Your task to perform on an android device: clear history in the chrome app Image 0: 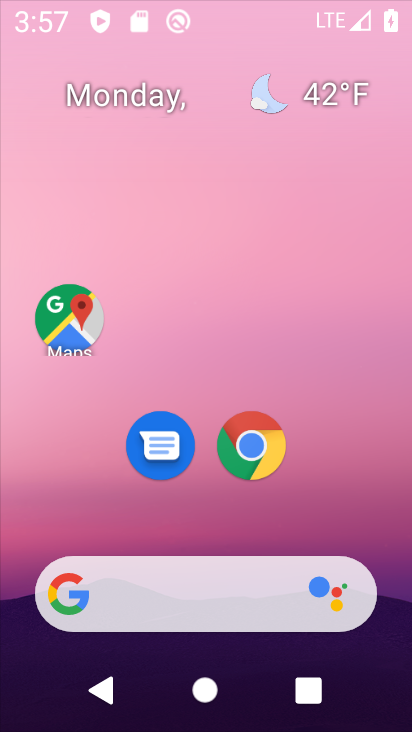
Step 0: drag from (90, 403) to (220, 38)
Your task to perform on an android device: clear history in the chrome app Image 1: 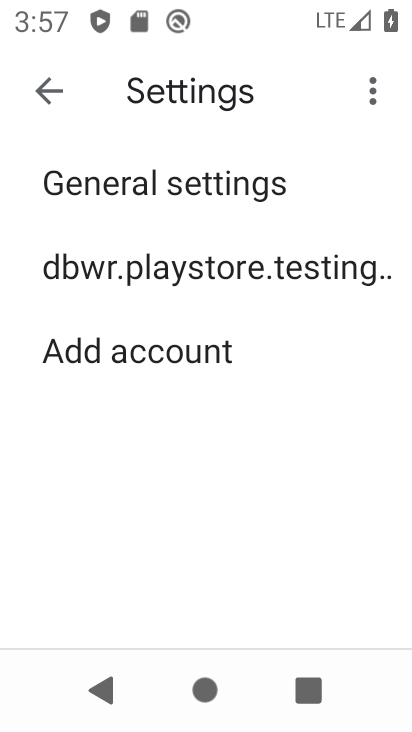
Step 1: press home button
Your task to perform on an android device: clear history in the chrome app Image 2: 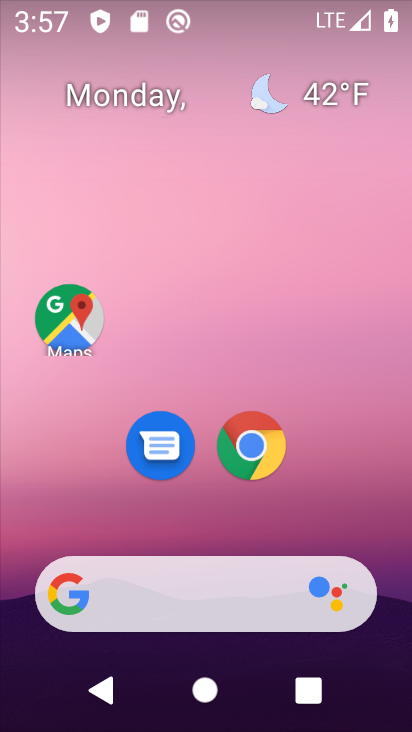
Step 2: click (245, 444)
Your task to perform on an android device: clear history in the chrome app Image 3: 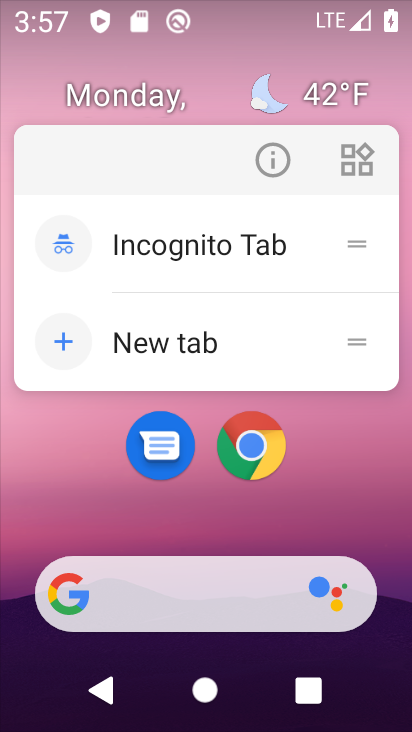
Step 3: click (245, 444)
Your task to perform on an android device: clear history in the chrome app Image 4: 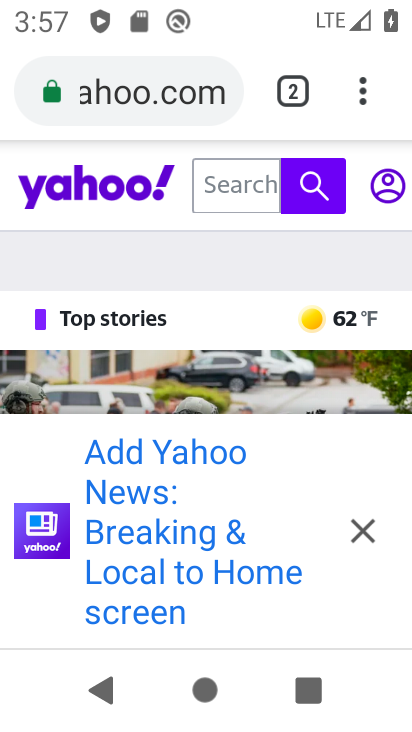
Step 4: click (361, 87)
Your task to perform on an android device: clear history in the chrome app Image 5: 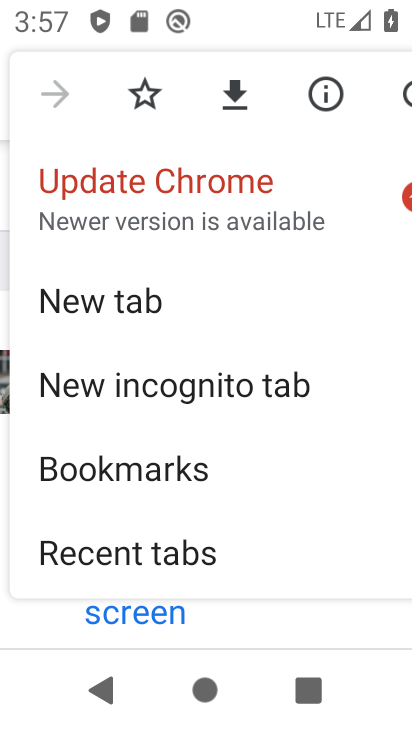
Step 5: drag from (158, 567) to (247, 138)
Your task to perform on an android device: clear history in the chrome app Image 6: 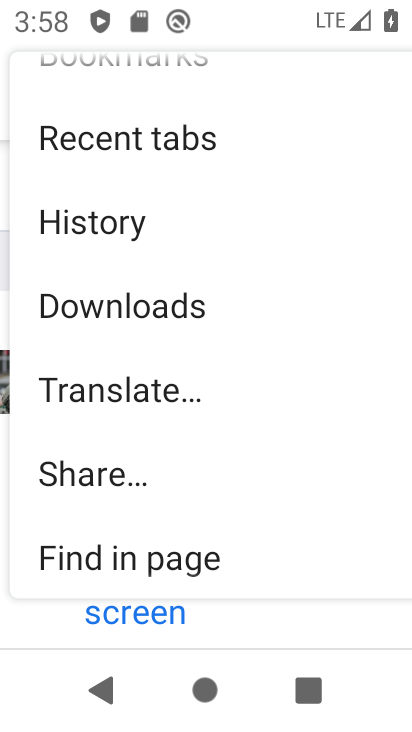
Step 6: click (134, 230)
Your task to perform on an android device: clear history in the chrome app Image 7: 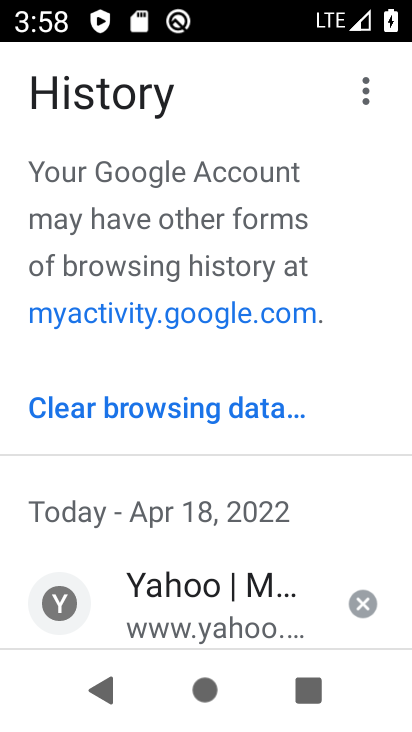
Step 7: click (209, 427)
Your task to perform on an android device: clear history in the chrome app Image 8: 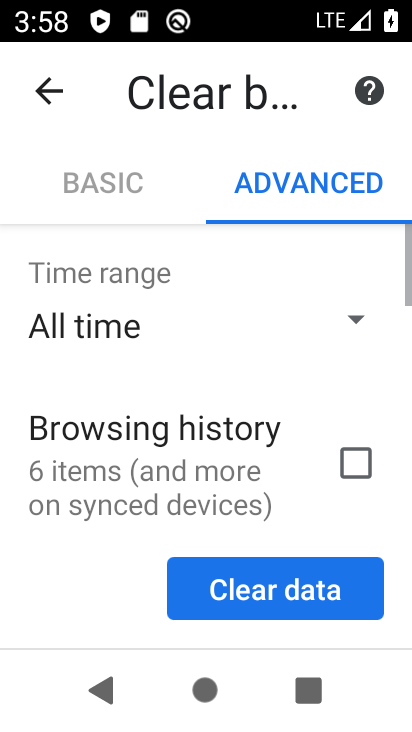
Step 8: click (251, 579)
Your task to perform on an android device: clear history in the chrome app Image 9: 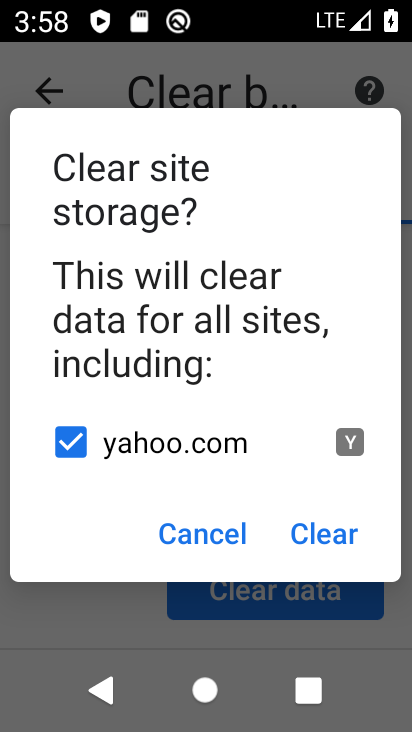
Step 9: click (349, 515)
Your task to perform on an android device: clear history in the chrome app Image 10: 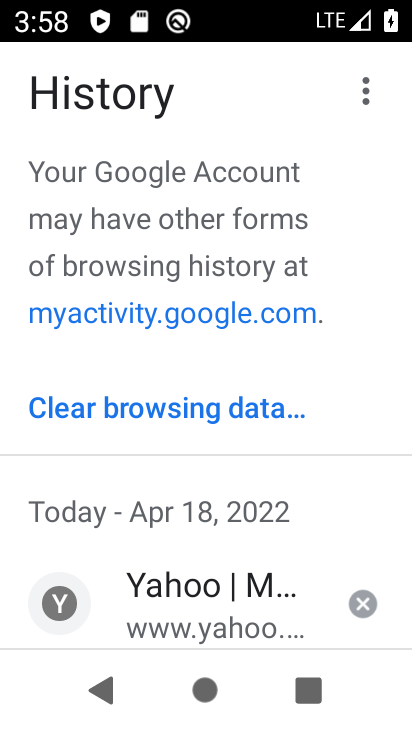
Step 10: click (181, 415)
Your task to perform on an android device: clear history in the chrome app Image 11: 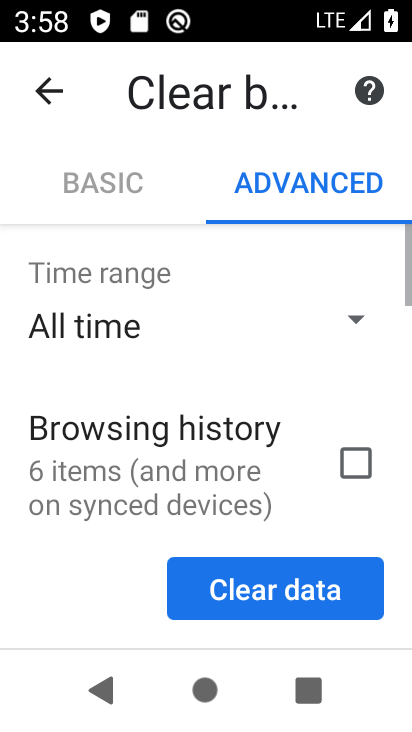
Step 11: click (261, 456)
Your task to perform on an android device: clear history in the chrome app Image 12: 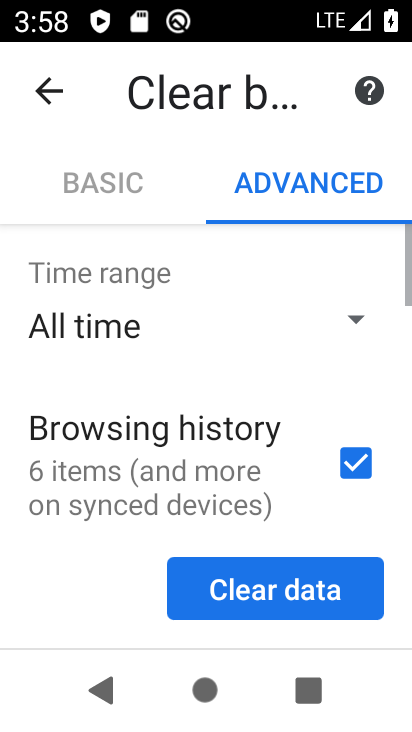
Step 12: click (256, 566)
Your task to perform on an android device: clear history in the chrome app Image 13: 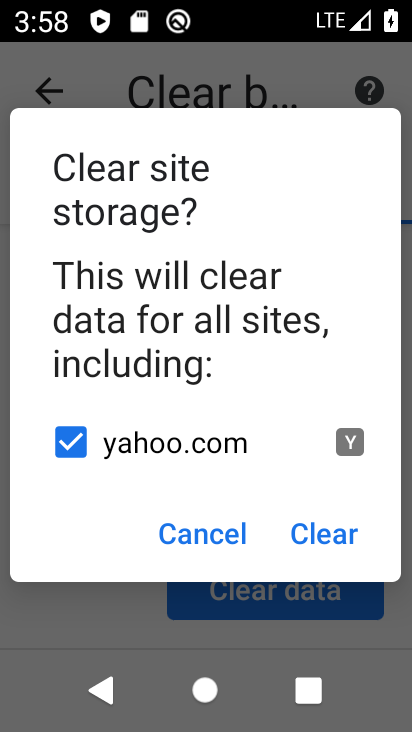
Step 13: click (323, 539)
Your task to perform on an android device: clear history in the chrome app Image 14: 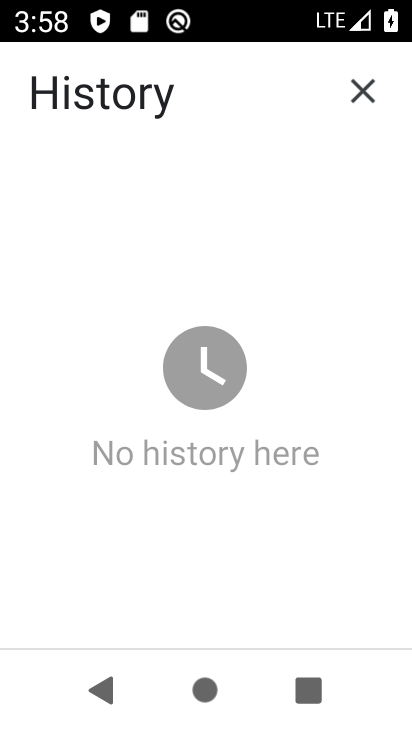
Step 14: task complete